Your task to perform on an android device: Go to Yahoo.com Image 0: 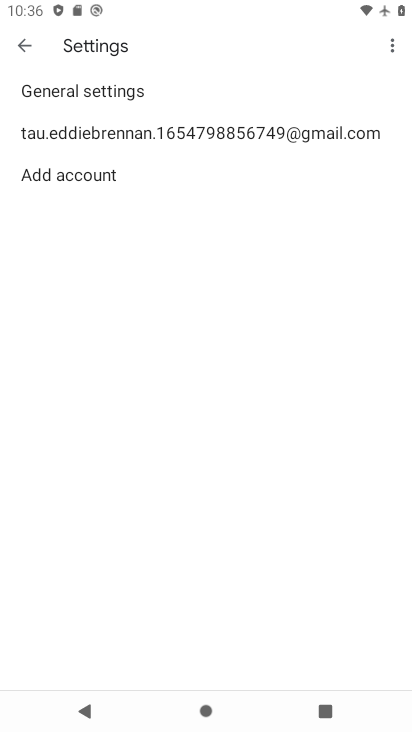
Step 0: press home button
Your task to perform on an android device: Go to Yahoo.com Image 1: 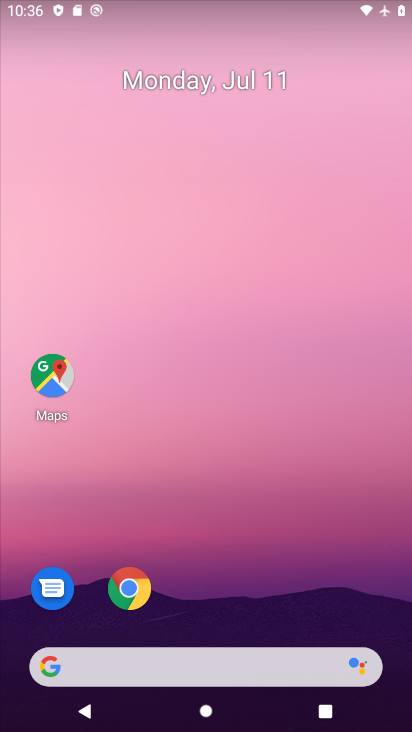
Step 1: click (125, 607)
Your task to perform on an android device: Go to Yahoo.com Image 2: 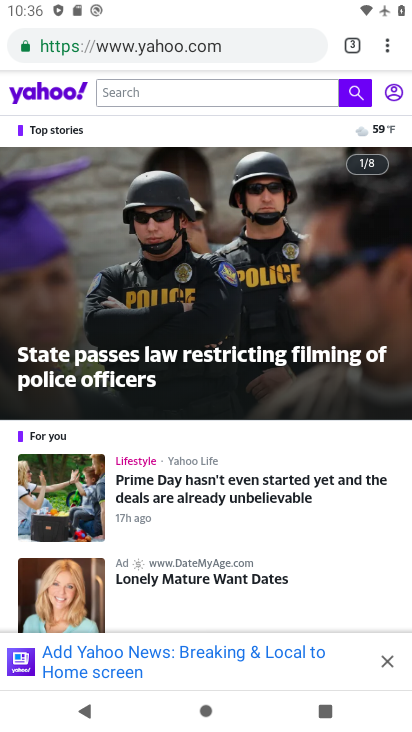
Step 2: task complete